Your task to perform on an android device: Open Google Maps Image 0: 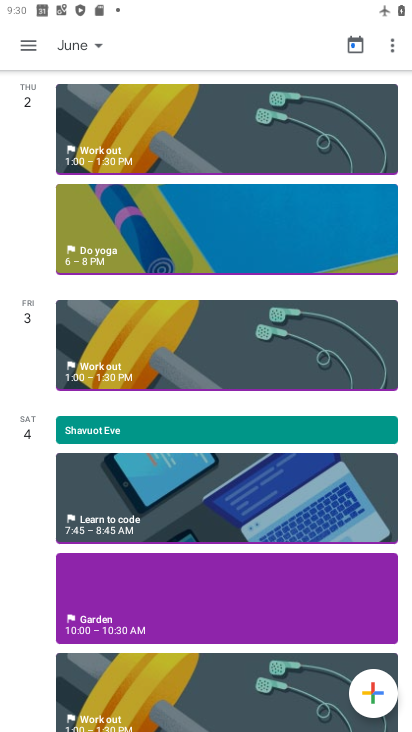
Step 0: press home button
Your task to perform on an android device: Open Google Maps Image 1: 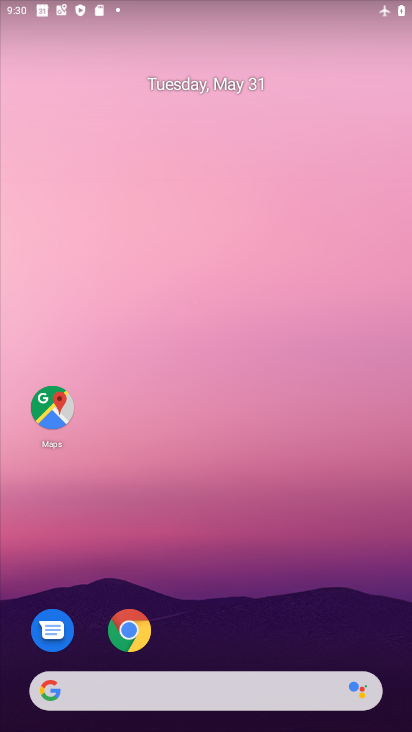
Step 1: drag from (213, 623) to (238, 215)
Your task to perform on an android device: Open Google Maps Image 2: 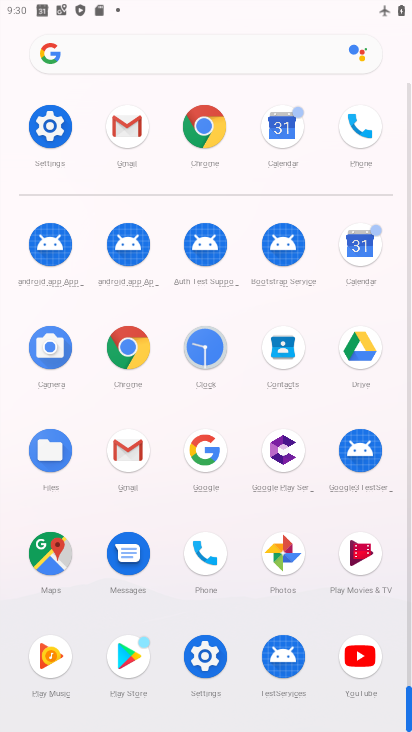
Step 2: click (200, 455)
Your task to perform on an android device: Open Google Maps Image 3: 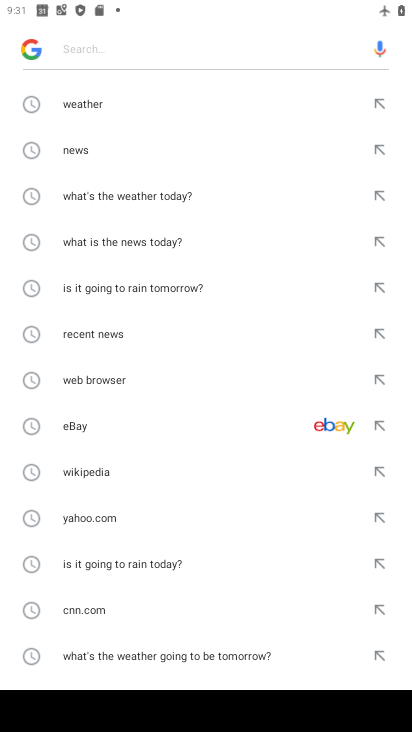
Step 3: press home button
Your task to perform on an android device: Open Google Maps Image 4: 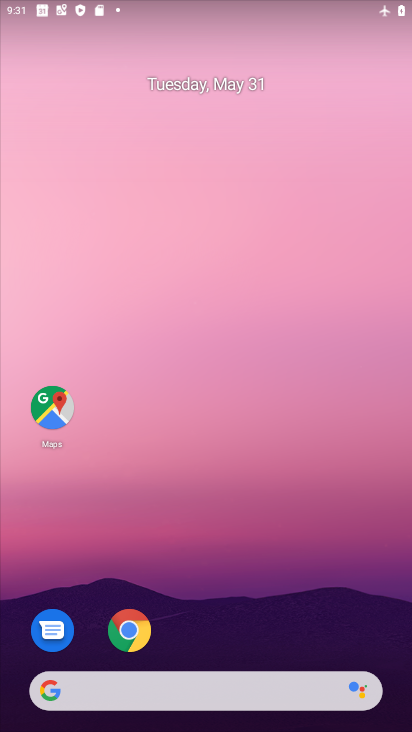
Step 4: click (42, 419)
Your task to perform on an android device: Open Google Maps Image 5: 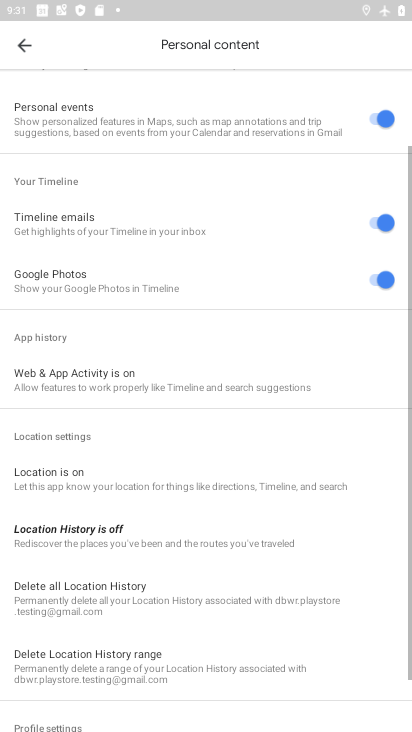
Step 5: task complete